Your task to perform on an android device: check storage Image 0: 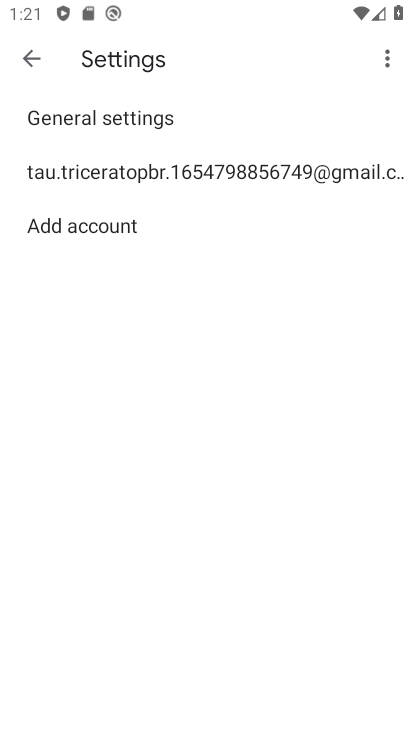
Step 0: press home button
Your task to perform on an android device: check storage Image 1: 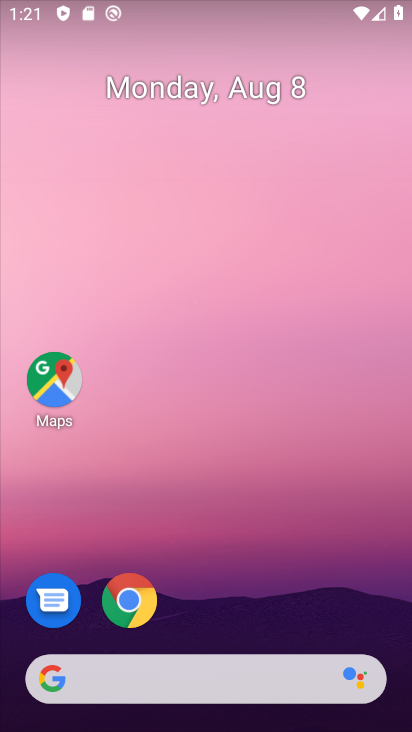
Step 1: drag from (218, 636) to (169, 146)
Your task to perform on an android device: check storage Image 2: 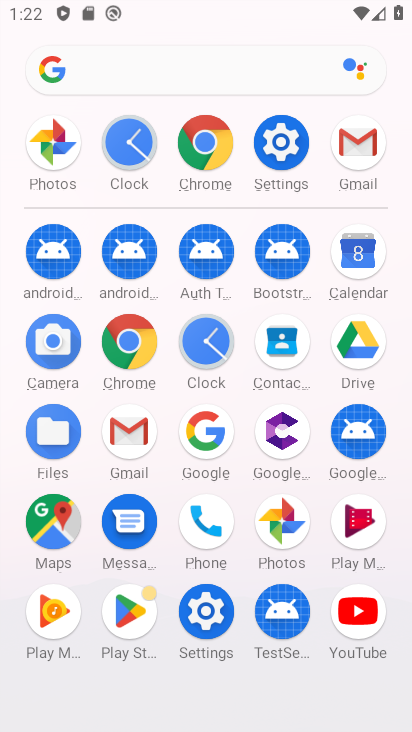
Step 2: click (208, 617)
Your task to perform on an android device: check storage Image 3: 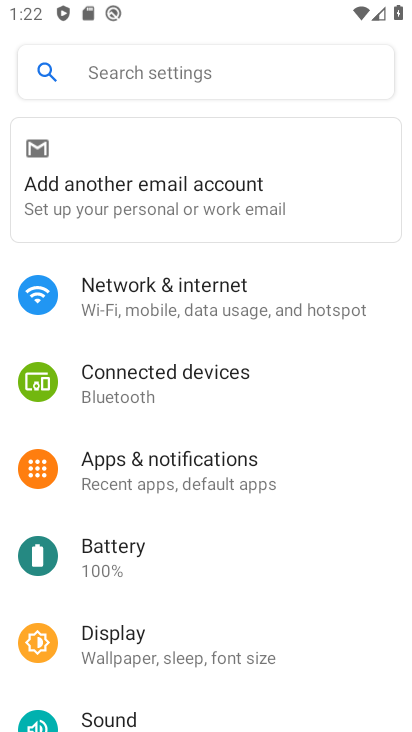
Step 3: drag from (208, 617) to (228, 449)
Your task to perform on an android device: check storage Image 4: 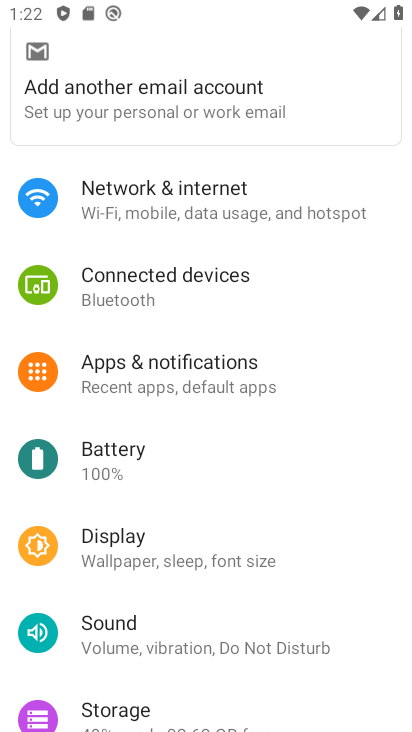
Step 4: click (147, 699)
Your task to perform on an android device: check storage Image 5: 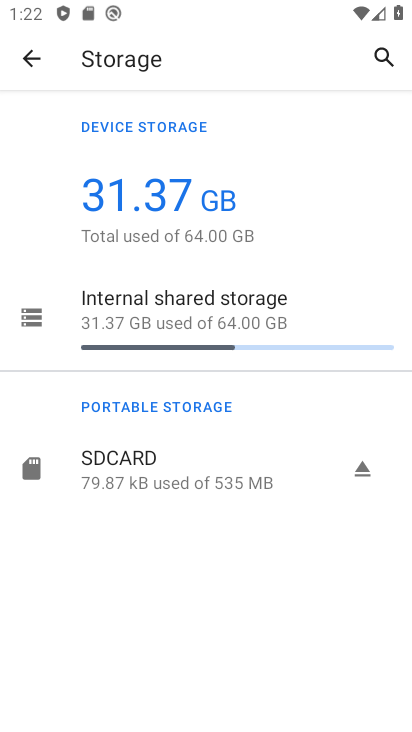
Step 5: task complete